Your task to perform on an android device: turn on priority inbox in the gmail app Image 0: 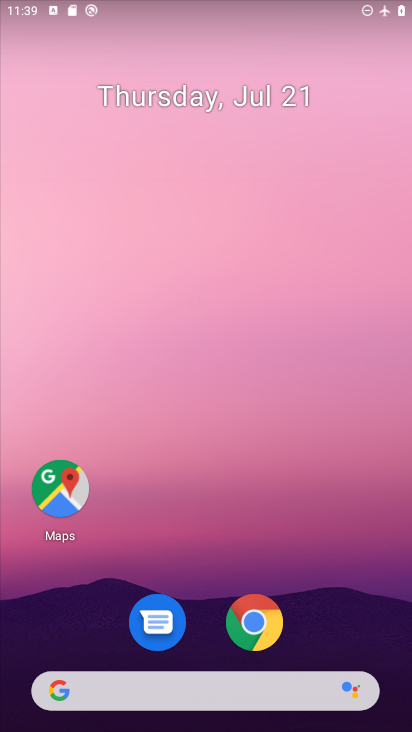
Step 0: drag from (225, 710) to (408, 316)
Your task to perform on an android device: turn on priority inbox in the gmail app Image 1: 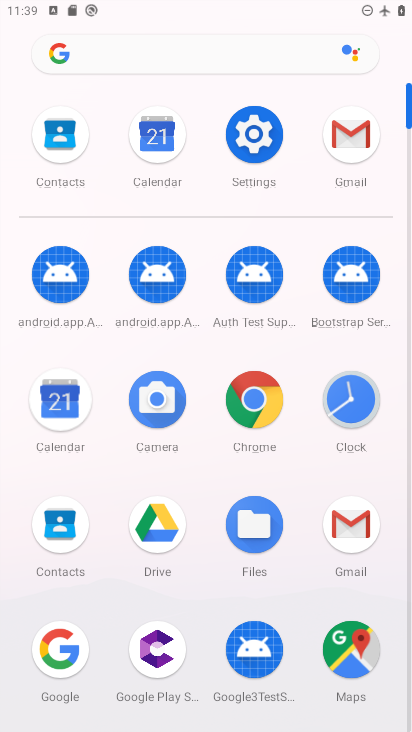
Step 1: click (349, 148)
Your task to perform on an android device: turn on priority inbox in the gmail app Image 2: 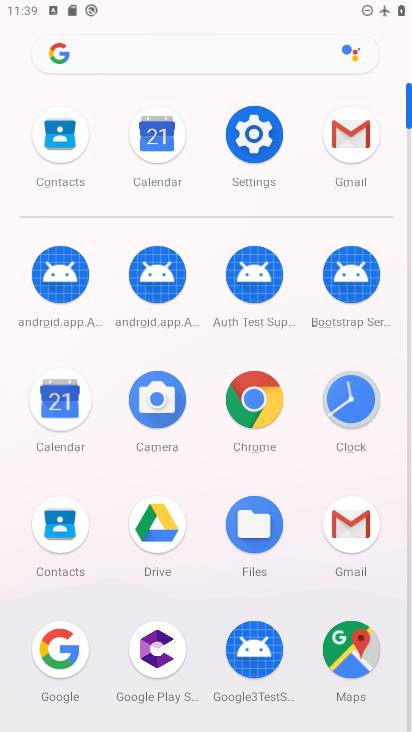
Step 2: click (349, 148)
Your task to perform on an android device: turn on priority inbox in the gmail app Image 3: 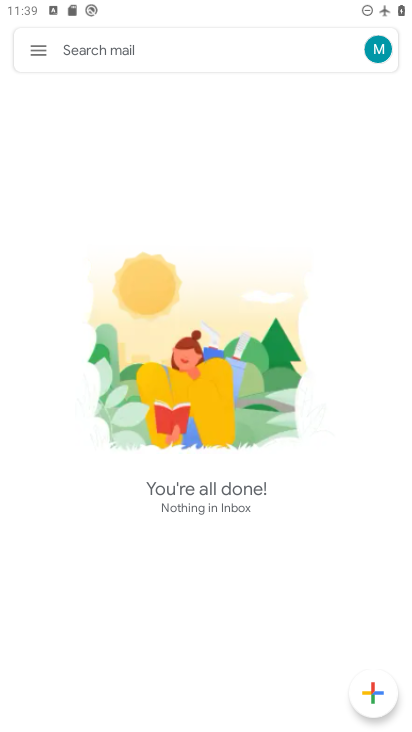
Step 3: click (33, 49)
Your task to perform on an android device: turn on priority inbox in the gmail app Image 4: 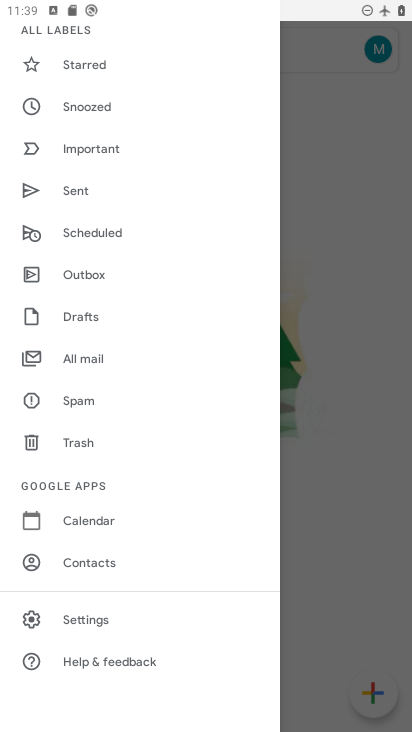
Step 4: click (66, 623)
Your task to perform on an android device: turn on priority inbox in the gmail app Image 5: 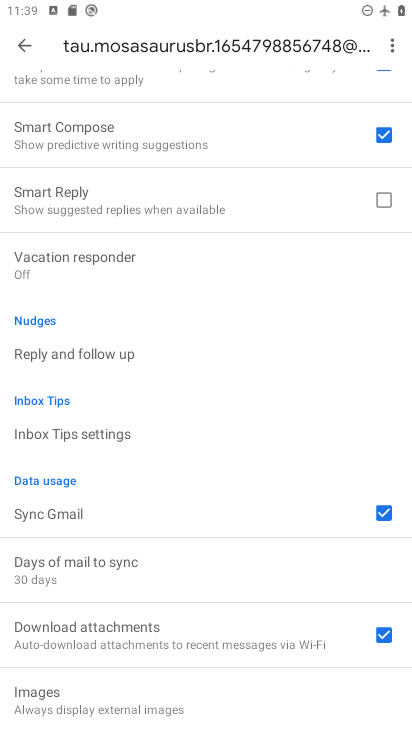
Step 5: task complete